Your task to perform on an android device: star an email in the gmail app Image 0: 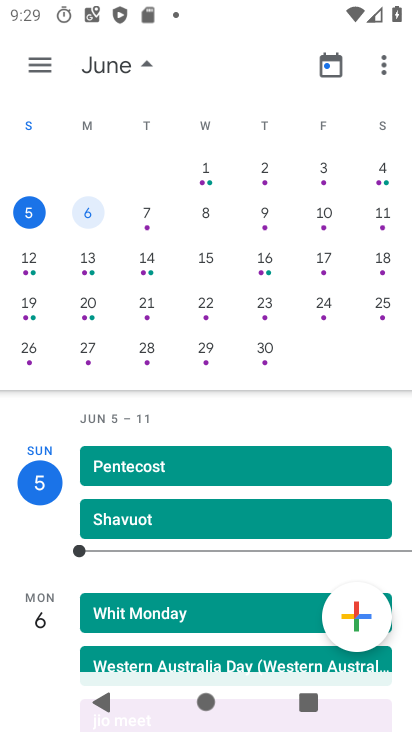
Step 0: press home button
Your task to perform on an android device: star an email in the gmail app Image 1: 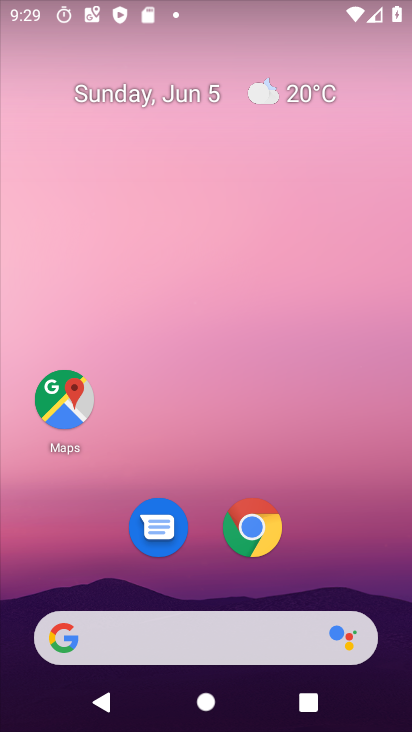
Step 1: drag from (345, 570) to (339, 30)
Your task to perform on an android device: star an email in the gmail app Image 2: 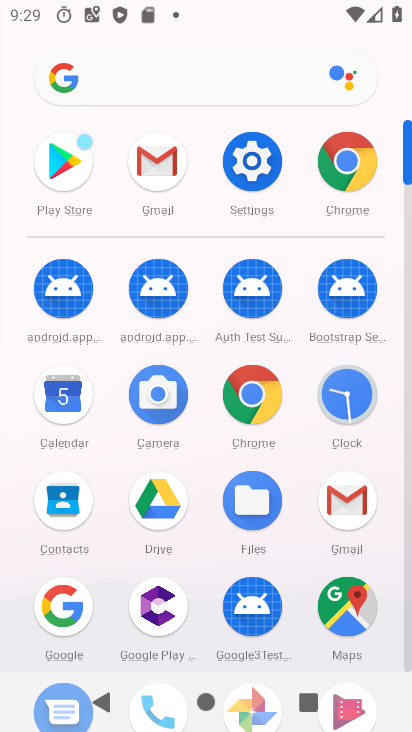
Step 2: click (160, 151)
Your task to perform on an android device: star an email in the gmail app Image 3: 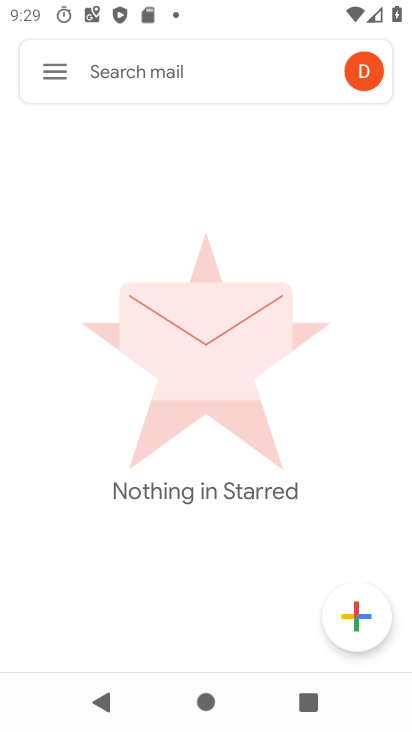
Step 3: click (45, 78)
Your task to perform on an android device: star an email in the gmail app Image 4: 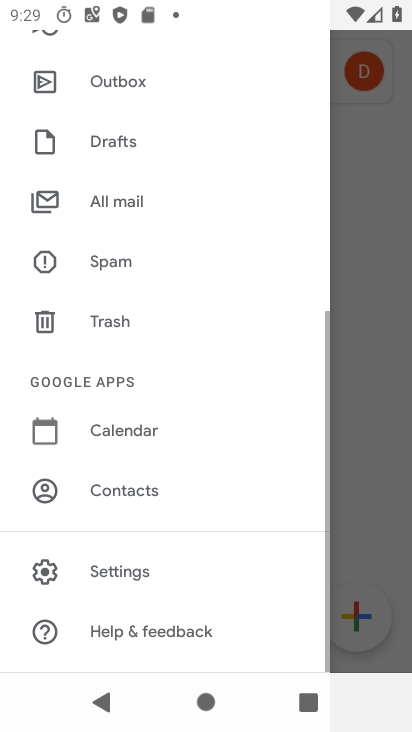
Step 4: drag from (95, 145) to (145, 640)
Your task to perform on an android device: star an email in the gmail app Image 5: 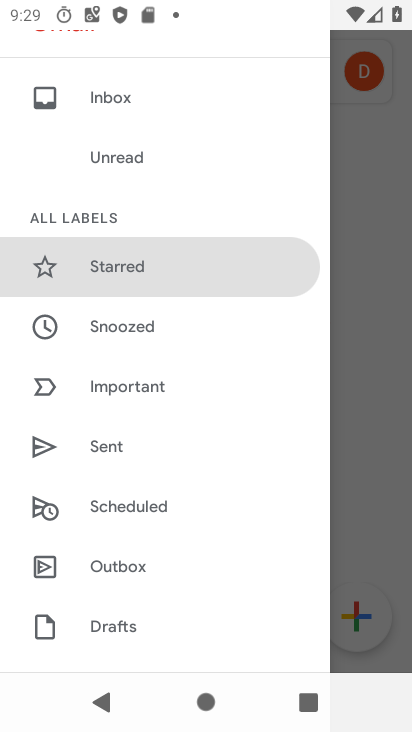
Step 5: drag from (179, 136) to (198, 595)
Your task to perform on an android device: star an email in the gmail app Image 6: 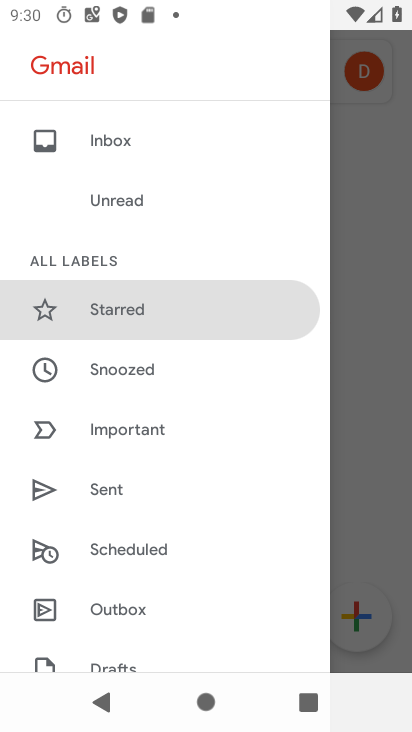
Step 6: click (128, 145)
Your task to perform on an android device: star an email in the gmail app Image 7: 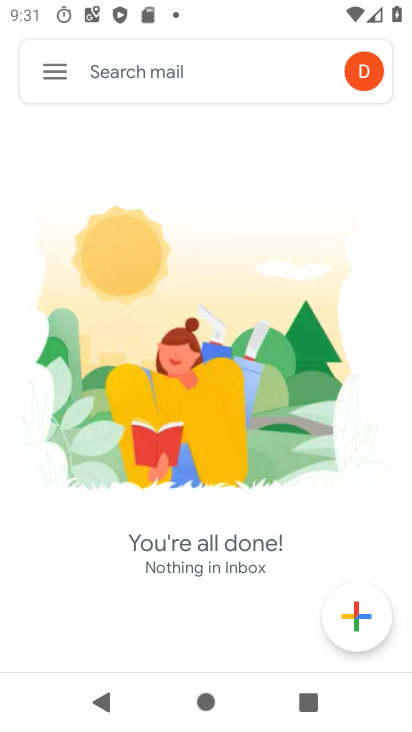
Step 7: task complete